Your task to perform on an android device: turn on the 12-hour format for clock Image 0: 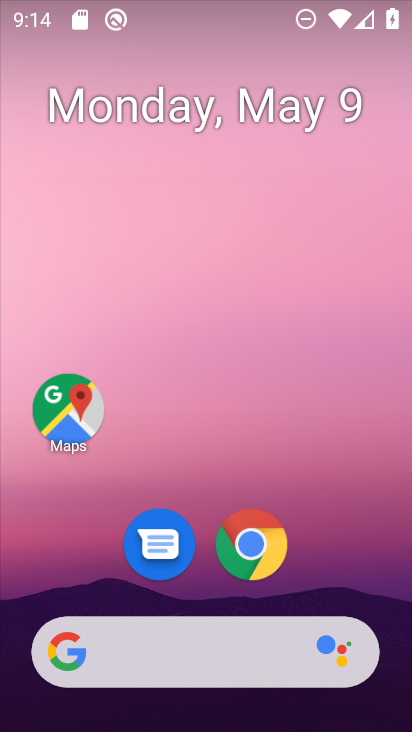
Step 0: drag from (341, 559) to (208, 83)
Your task to perform on an android device: turn on the 12-hour format for clock Image 1: 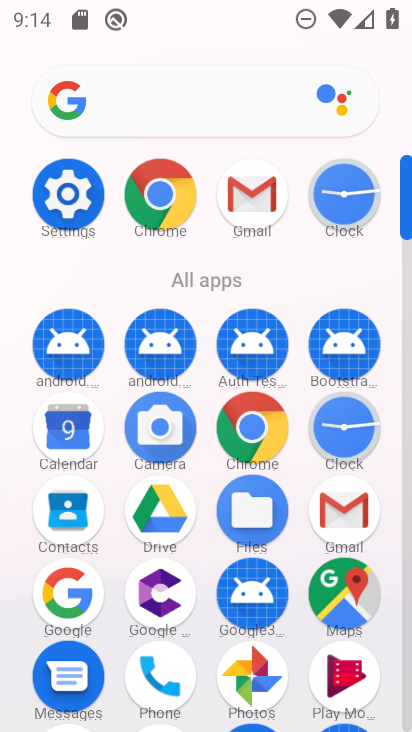
Step 1: click (346, 205)
Your task to perform on an android device: turn on the 12-hour format for clock Image 2: 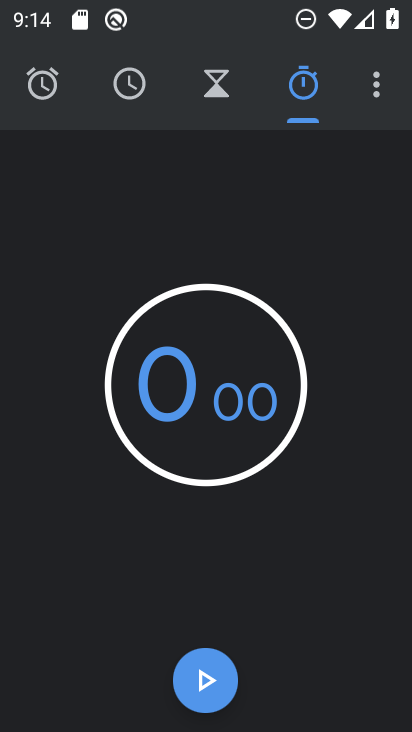
Step 2: click (378, 89)
Your task to perform on an android device: turn on the 12-hour format for clock Image 3: 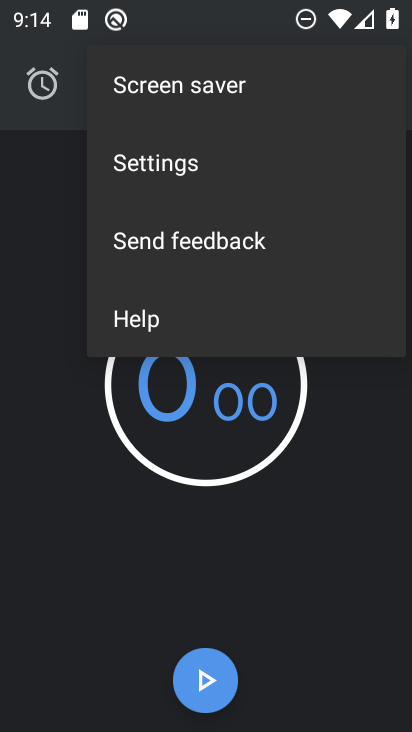
Step 3: click (168, 171)
Your task to perform on an android device: turn on the 12-hour format for clock Image 4: 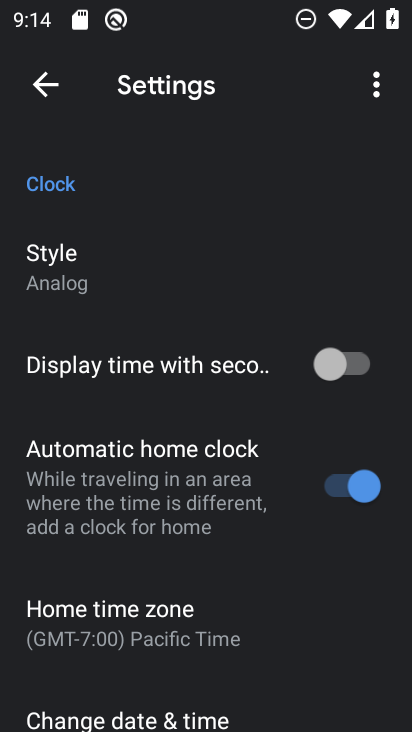
Step 4: drag from (231, 570) to (207, 303)
Your task to perform on an android device: turn on the 12-hour format for clock Image 5: 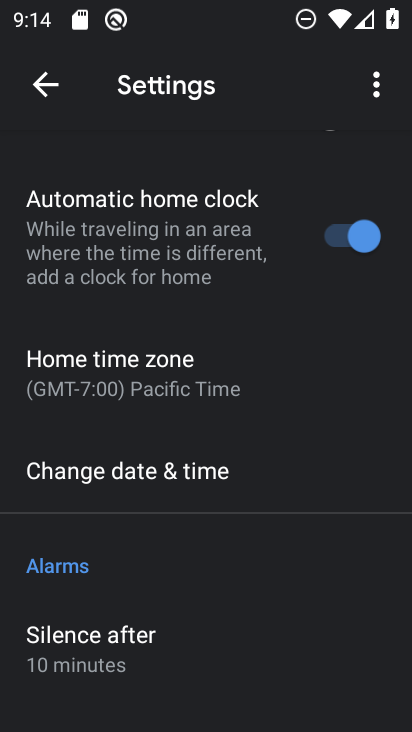
Step 5: click (157, 467)
Your task to perform on an android device: turn on the 12-hour format for clock Image 6: 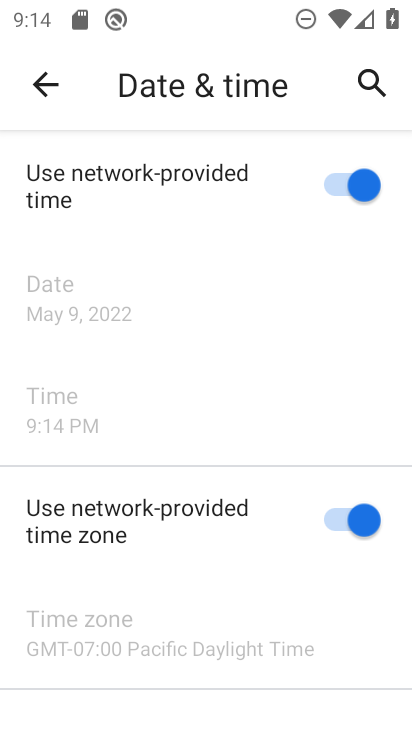
Step 6: task complete